Your task to perform on an android device: Open the stopwatch Image 0: 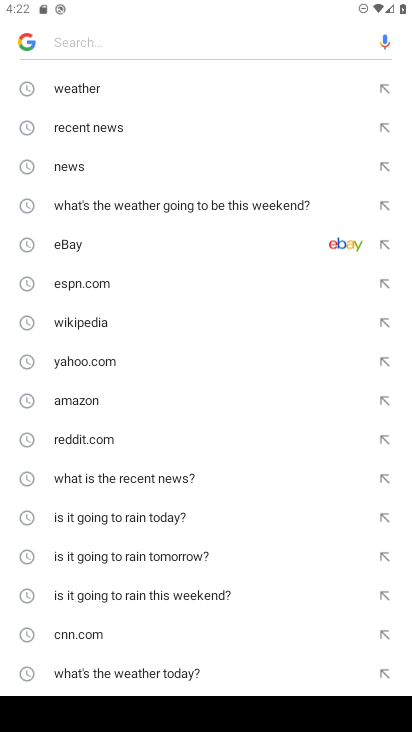
Step 0: press home button
Your task to perform on an android device: Open the stopwatch Image 1: 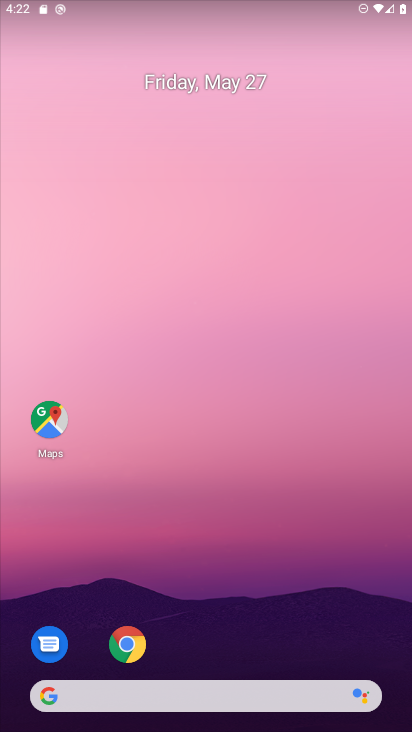
Step 1: drag from (218, 534) to (191, 172)
Your task to perform on an android device: Open the stopwatch Image 2: 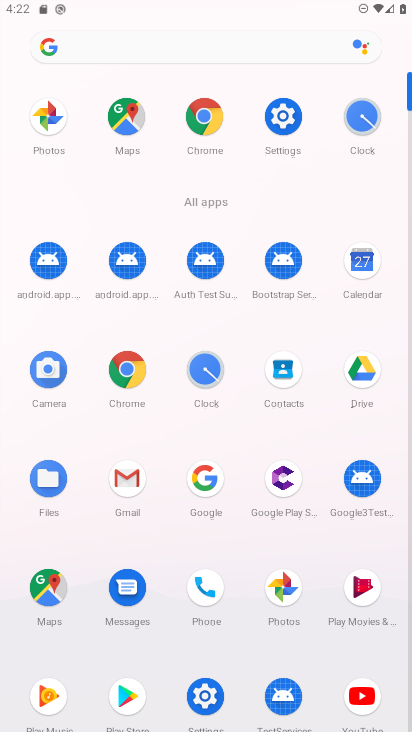
Step 2: click (348, 136)
Your task to perform on an android device: Open the stopwatch Image 3: 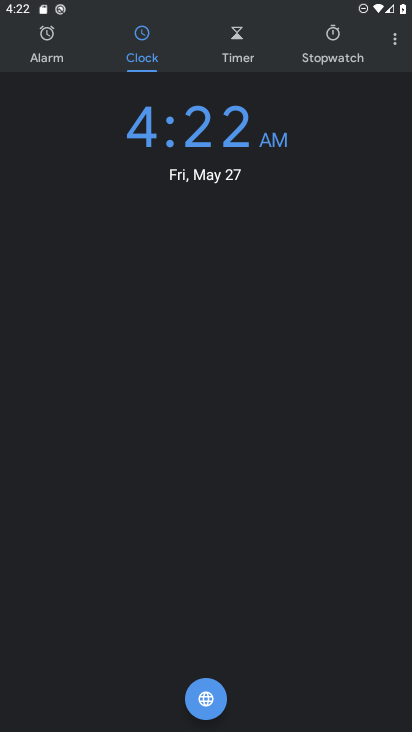
Step 3: click (349, 61)
Your task to perform on an android device: Open the stopwatch Image 4: 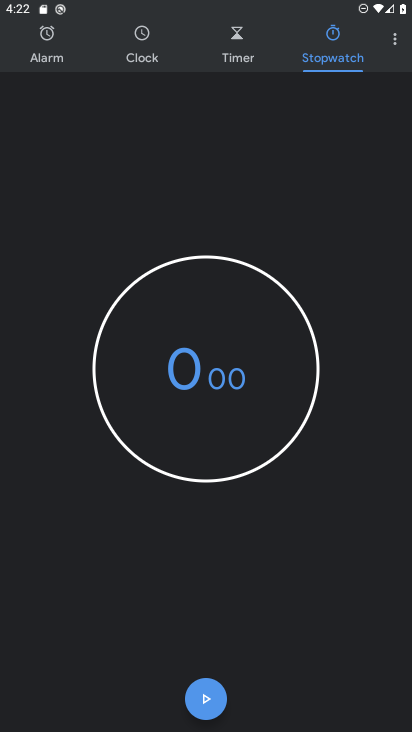
Step 4: task complete